Your task to perform on an android device: Open calendar and show me the second week of next month Image 0: 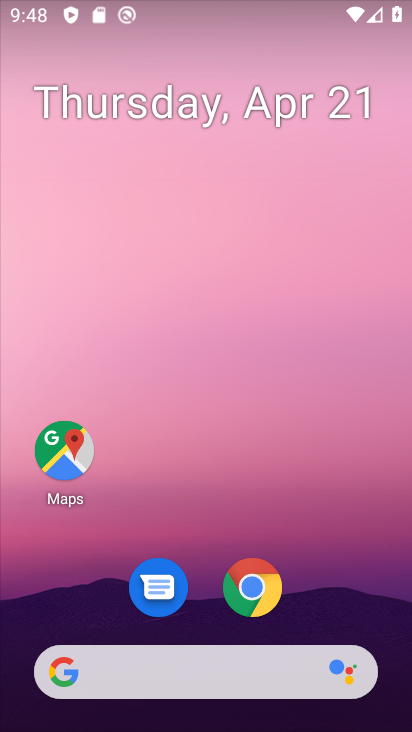
Step 0: drag from (343, 596) to (358, 85)
Your task to perform on an android device: Open calendar and show me the second week of next month Image 1: 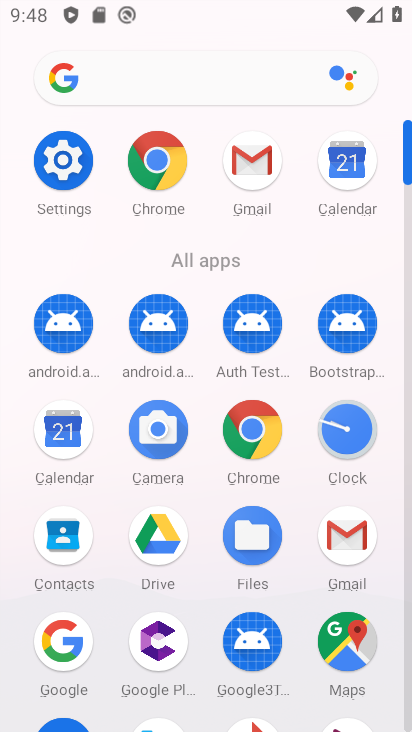
Step 1: click (50, 443)
Your task to perform on an android device: Open calendar and show me the second week of next month Image 2: 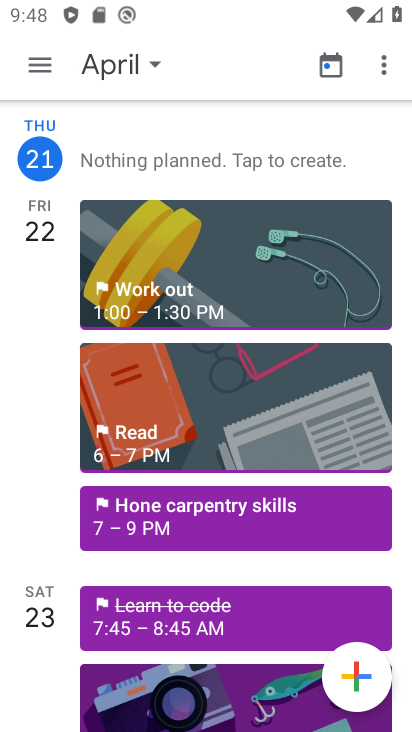
Step 2: click (157, 58)
Your task to perform on an android device: Open calendar and show me the second week of next month Image 3: 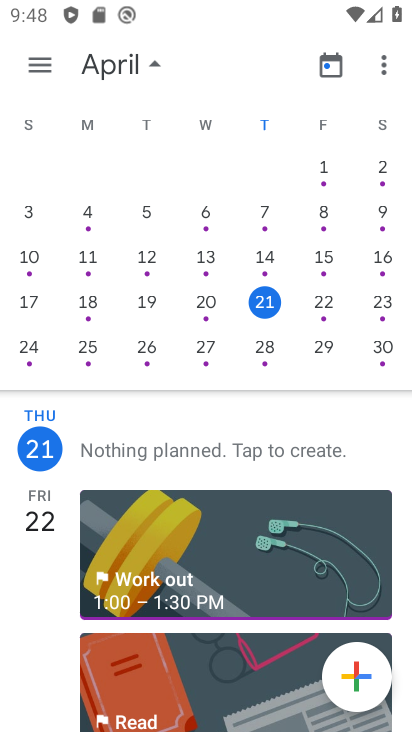
Step 3: drag from (392, 281) to (8, 252)
Your task to perform on an android device: Open calendar and show me the second week of next month Image 4: 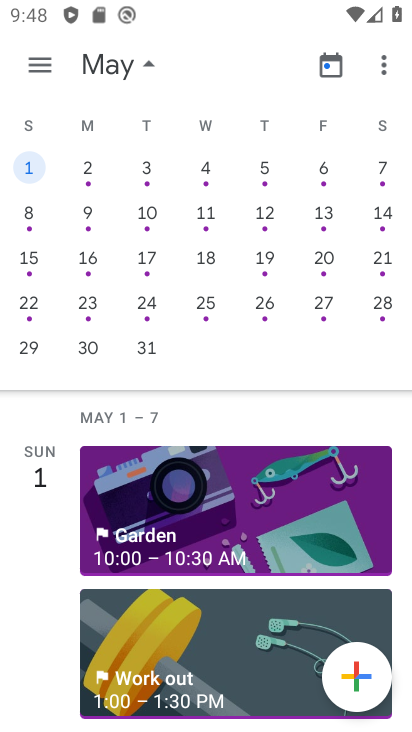
Step 4: click (143, 207)
Your task to perform on an android device: Open calendar and show me the second week of next month Image 5: 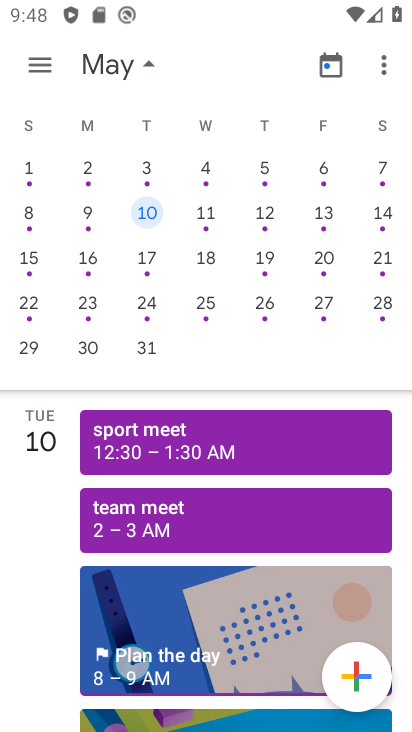
Step 5: task complete